Your task to perform on an android device: turn off sleep mode Image 0: 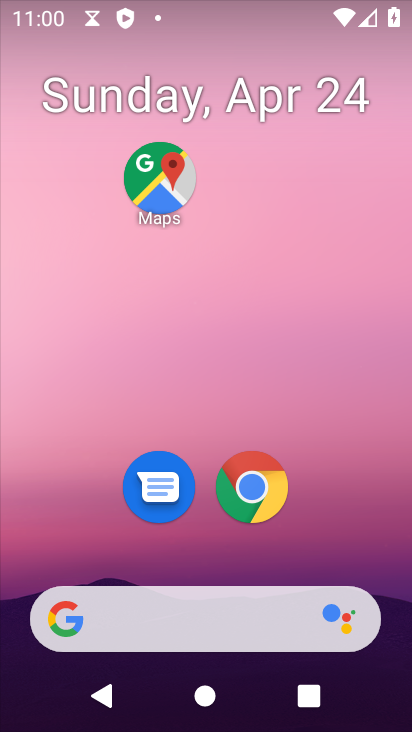
Step 0: drag from (36, 664) to (339, 157)
Your task to perform on an android device: turn off sleep mode Image 1: 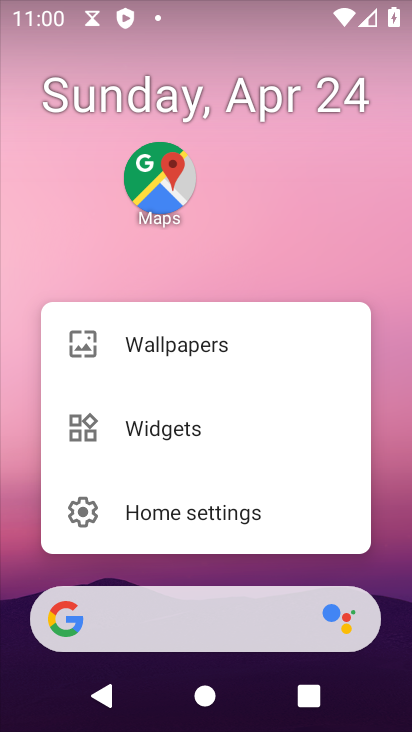
Step 1: click (394, 315)
Your task to perform on an android device: turn off sleep mode Image 2: 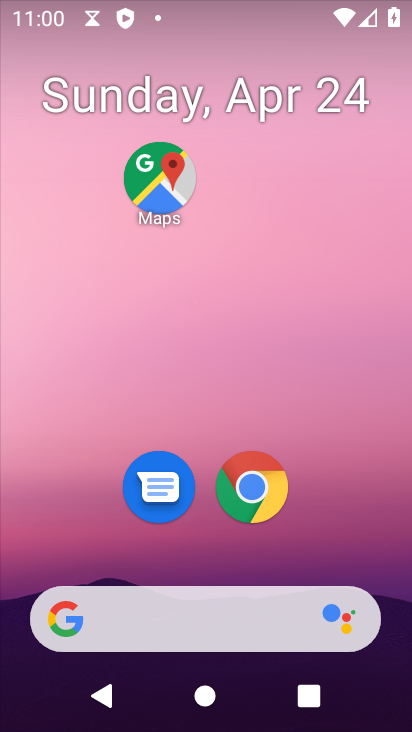
Step 2: drag from (39, 488) to (292, 217)
Your task to perform on an android device: turn off sleep mode Image 3: 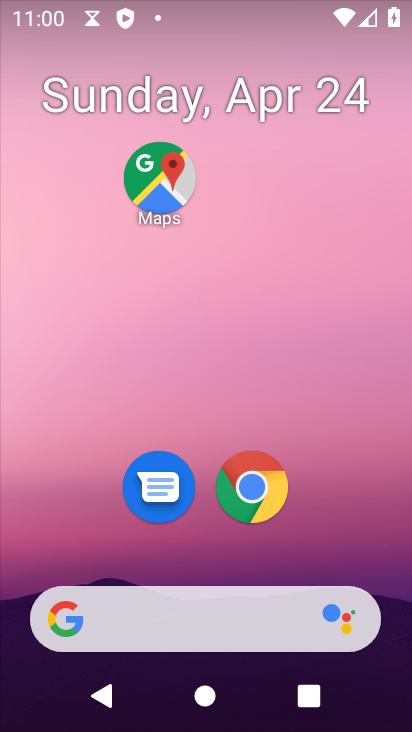
Step 3: drag from (25, 660) to (411, 223)
Your task to perform on an android device: turn off sleep mode Image 4: 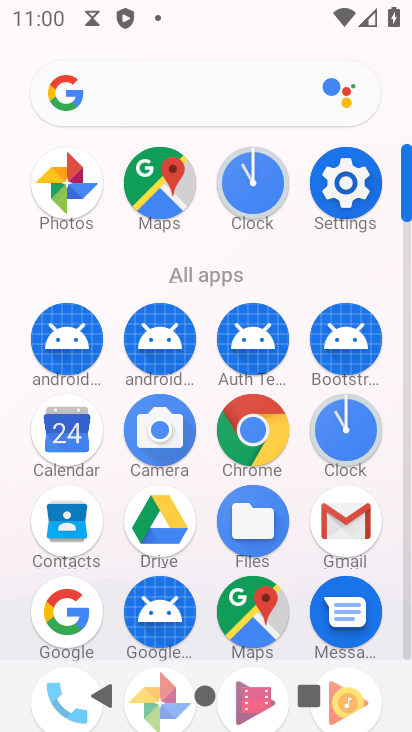
Step 4: click (344, 179)
Your task to perform on an android device: turn off sleep mode Image 5: 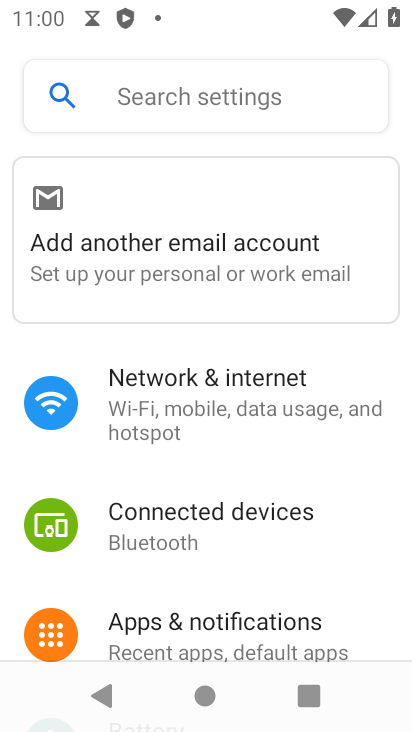
Step 5: drag from (262, 625) to (408, 338)
Your task to perform on an android device: turn off sleep mode Image 6: 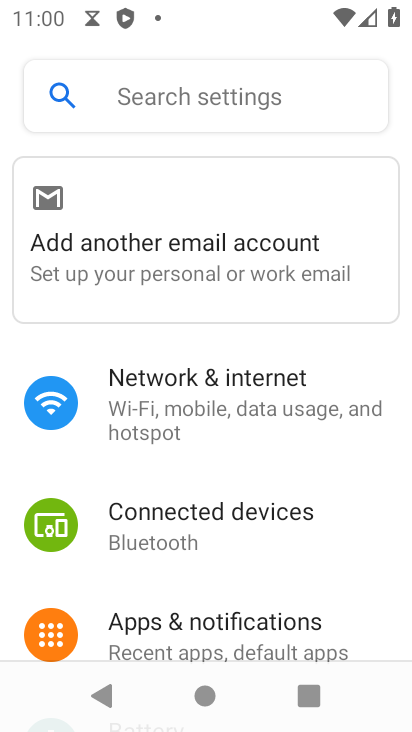
Step 6: drag from (81, 313) to (188, 159)
Your task to perform on an android device: turn off sleep mode Image 7: 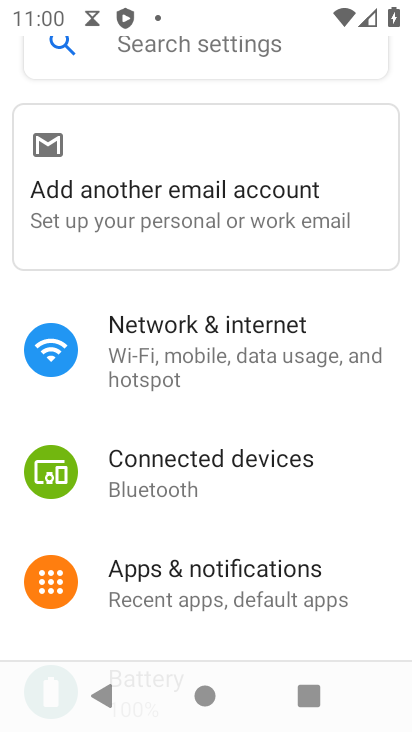
Step 7: drag from (39, 633) to (321, 378)
Your task to perform on an android device: turn off sleep mode Image 8: 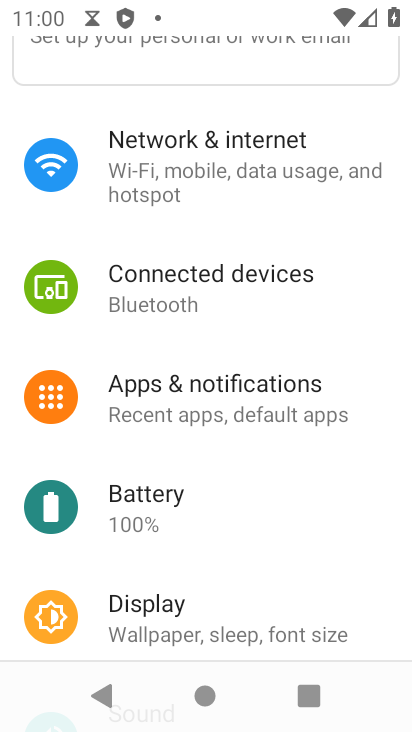
Step 8: click (164, 636)
Your task to perform on an android device: turn off sleep mode Image 9: 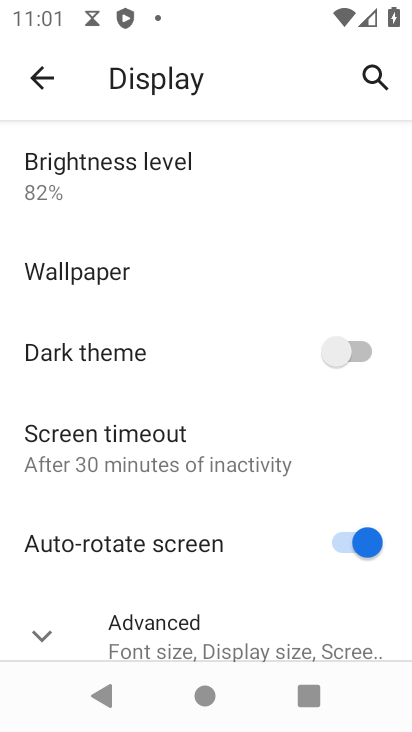
Step 9: task complete